Your task to perform on an android device: turn off sleep mode Image 0: 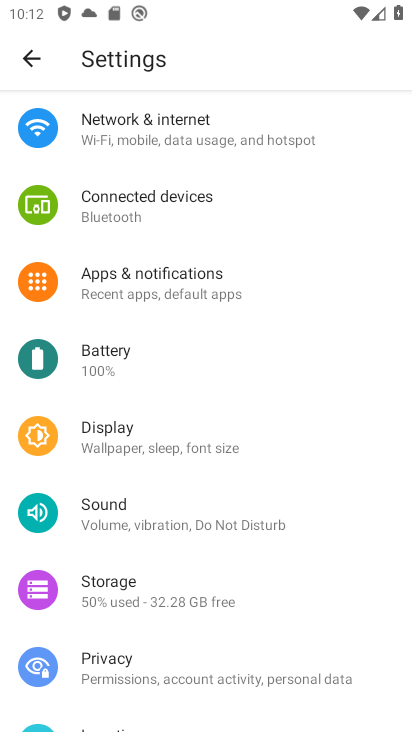
Step 0: click (126, 429)
Your task to perform on an android device: turn off sleep mode Image 1: 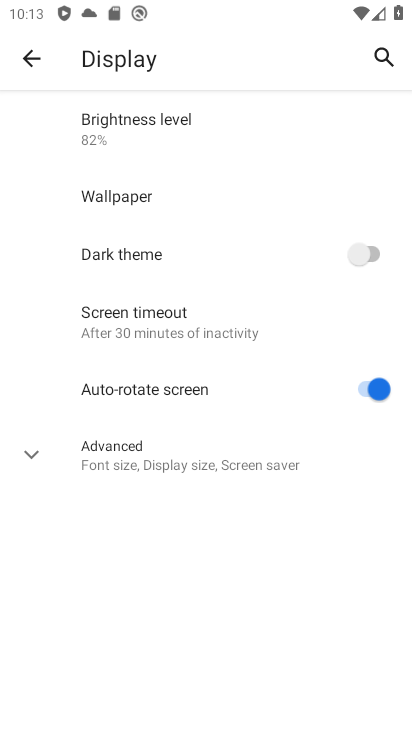
Step 1: task complete